Your task to perform on an android device: open wifi settings Image 0: 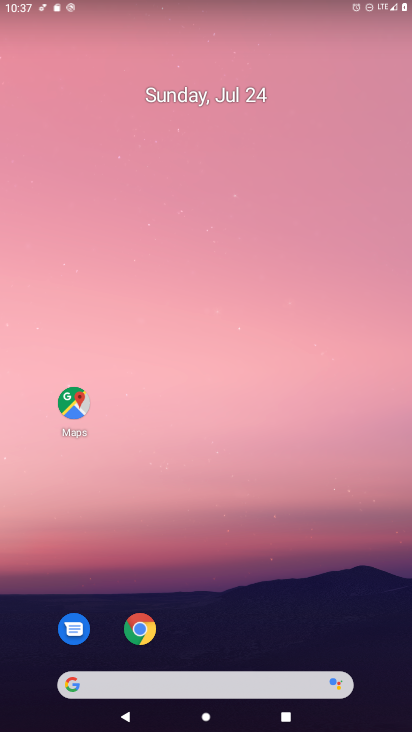
Step 0: drag from (314, 631) to (215, 21)
Your task to perform on an android device: open wifi settings Image 1: 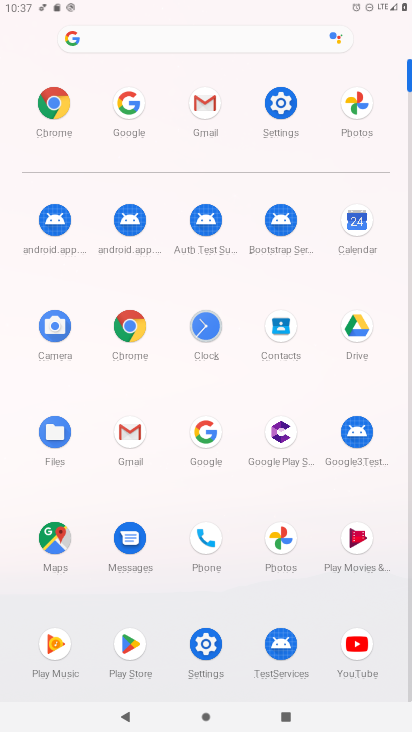
Step 1: click (216, 645)
Your task to perform on an android device: open wifi settings Image 2: 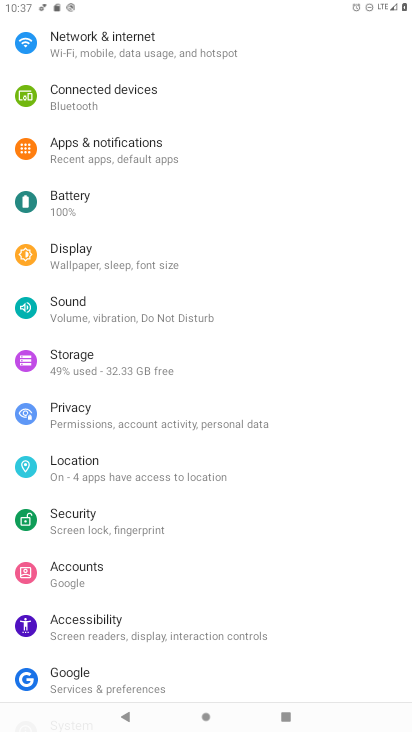
Step 2: drag from (153, 109) to (218, 589)
Your task to perform on an android device: open wifi settings Image 3: 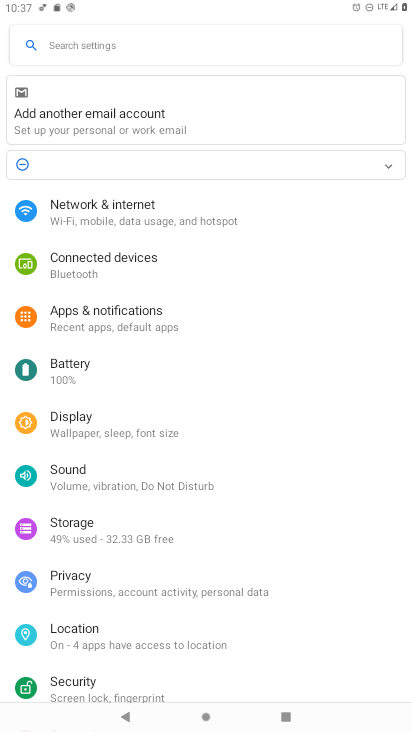
Step 3: click (99, 216)
Your task to perform on an android device: open wifi settings Image 4: 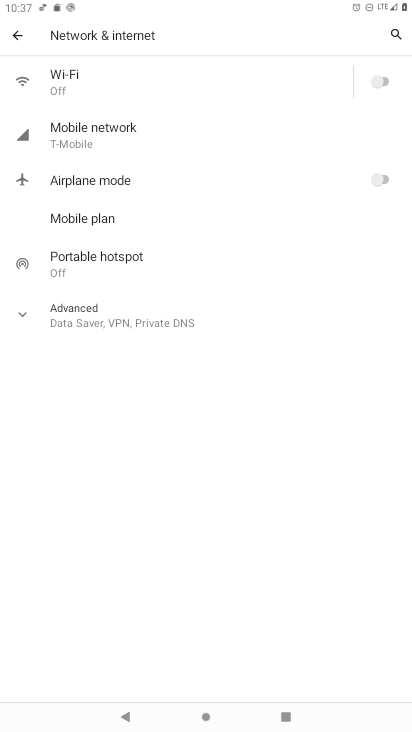
Step 4: click (93, 78)
Your task to perform on an android device: open wifi settings Image 5: 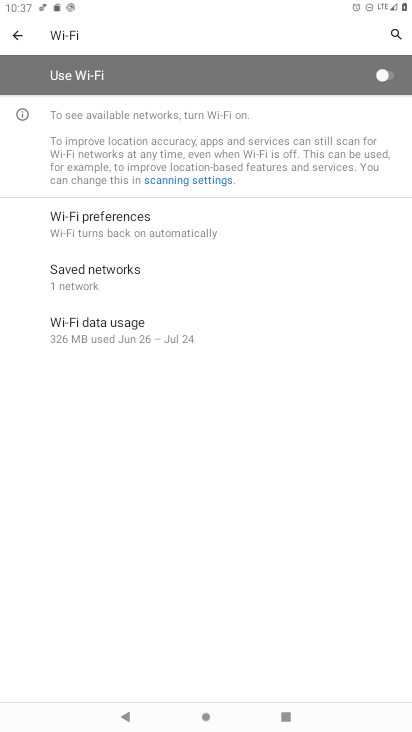
Step 5: task complete